Your task to perform on an android device: Open sound settings Image 0: 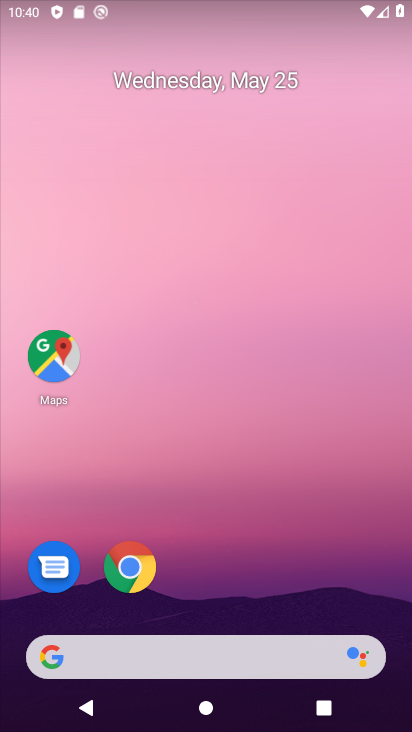
Step 0: drag from (191, 596) to (217, 154)
Your task to perform on an android device: Open sound settings Image 1: 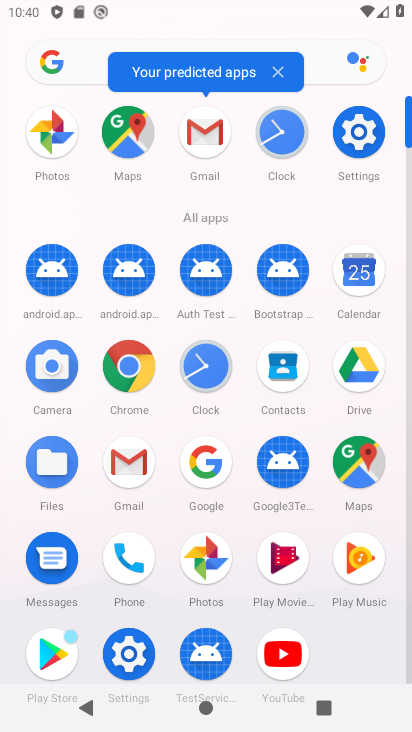
Step 1: click (364, 144)
Your task to perform on an android device: Open sound settings Image 2: 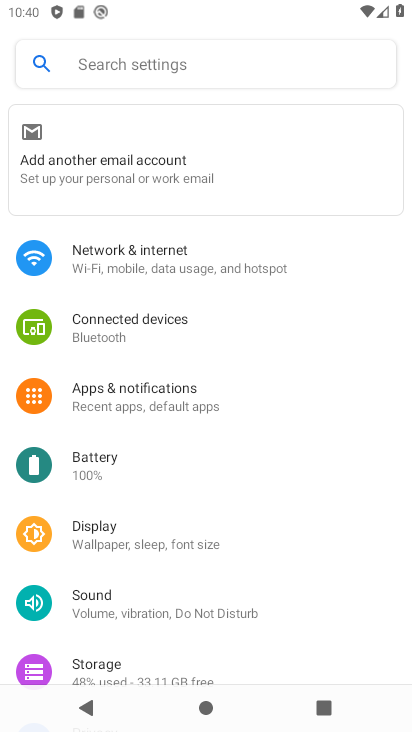
Step 2: click (120, 594)
Your task to perform on an android device: Open sound settings Image 3: 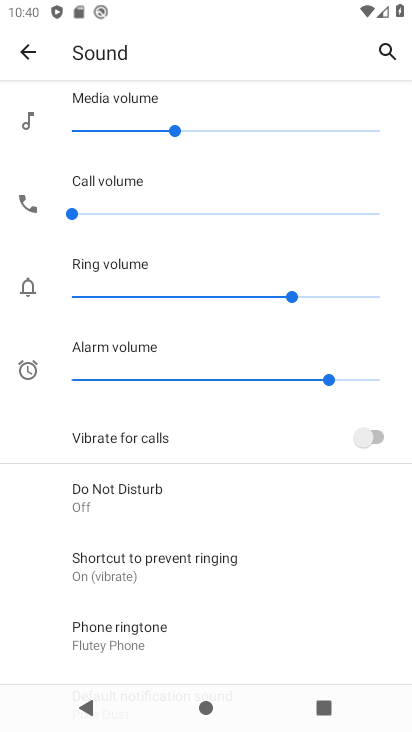
Step 3: task complete